Your task to perform on an android device: all mails in gmail Image 0: 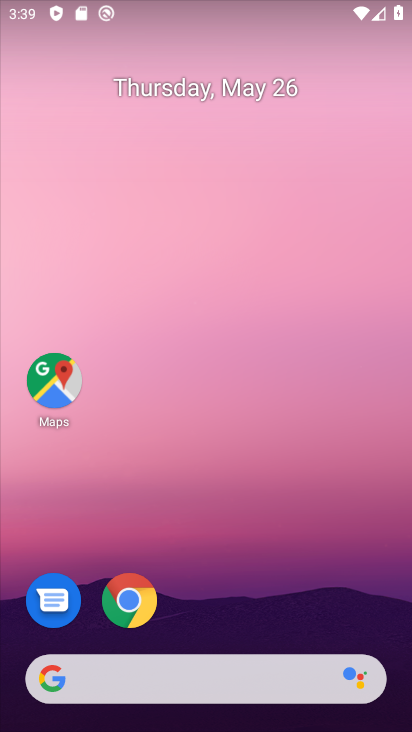
Step 0: drag from (228, 631) to (307, 146)
Your task to perform on an android device: all mails in gmail Image 1: 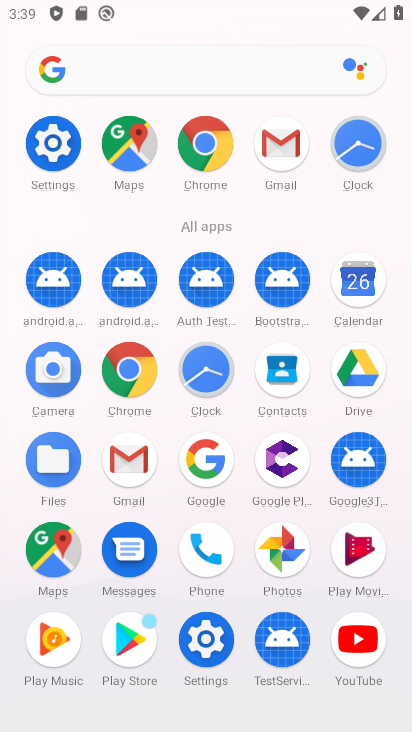
Step 1: click (135, 452)
Your task to perform on an android device: all mails in gmail Image 2: 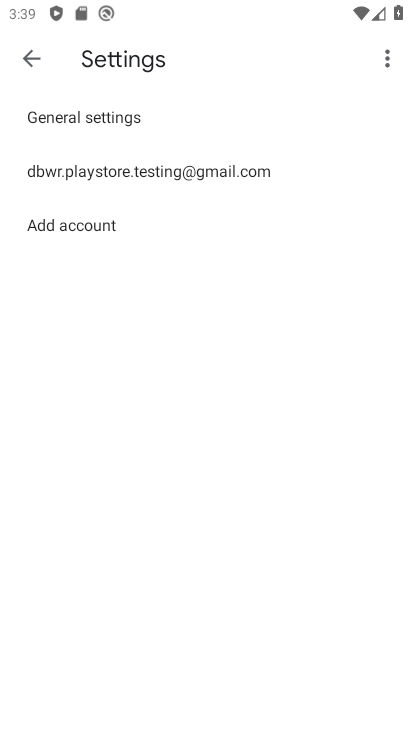
Step 2: click (34, 48)
Your task to perform on an android device: all mails in gmail Image 3: 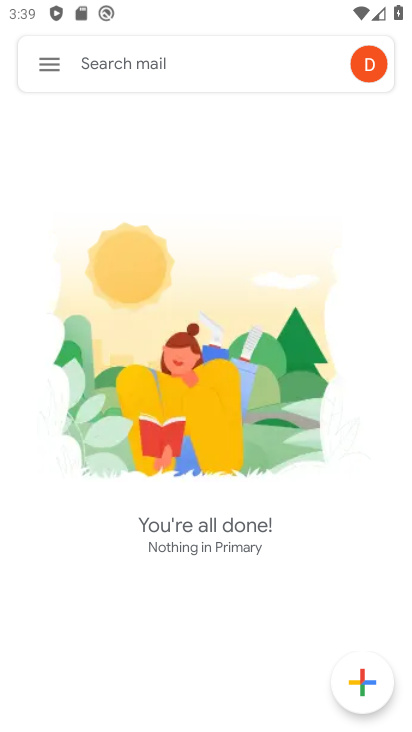
Step 3: click (37, 51)
Your task to perform on an android device: all mails in gmail Image 4: 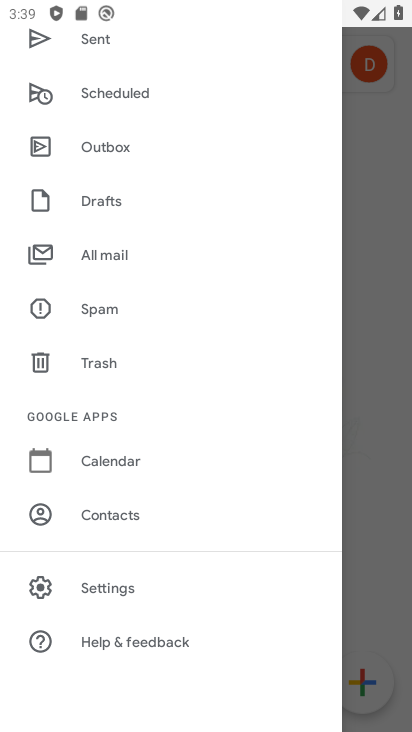
Step 4: click (138, 258)
Your task to perform on an android device: all mails in gmail Image 5: 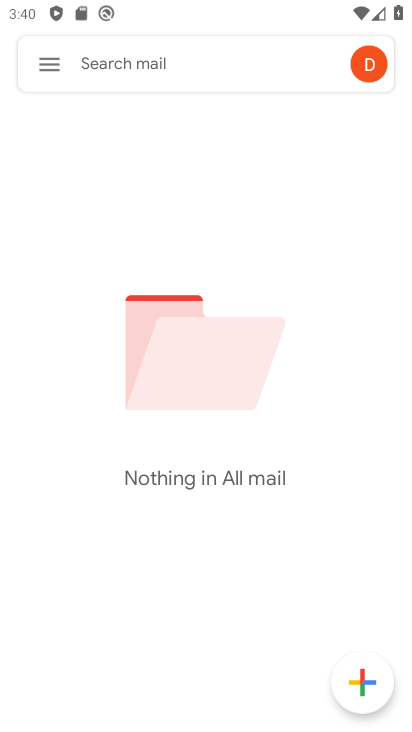
Step 5: task complete